Your task to perform on an android device: Open Google Chrome and open the bookmarks view Image 0: 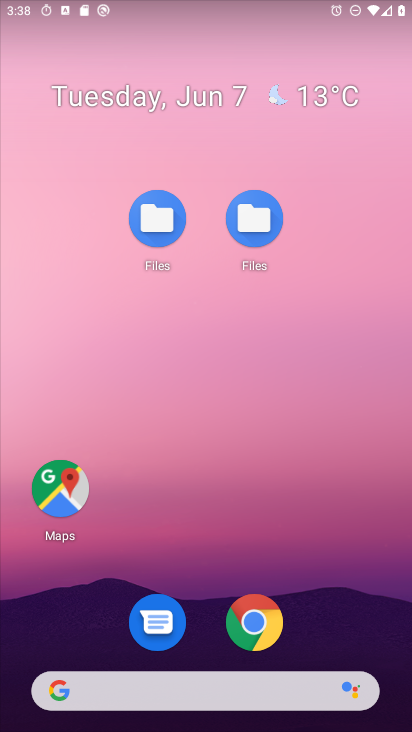
Step 0: click (253, 622)
Your task to perform on an android device: Open Google Chrome and open the bookmarks view Image 1: 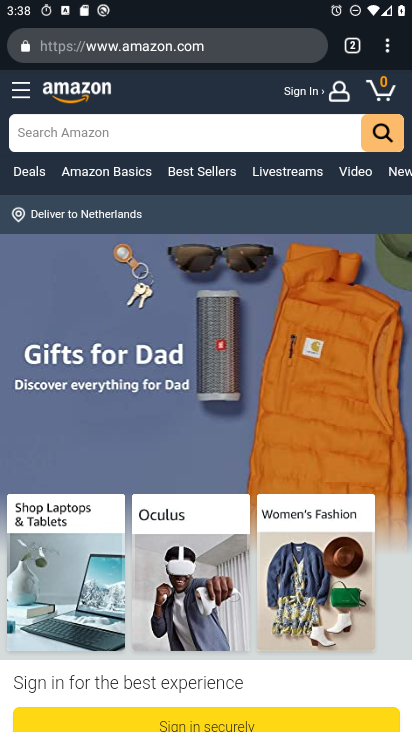
Step 1: click (386, 44)
Your task to perform on an android device: Open Google Chrome and open the bookmarks view Image 2: 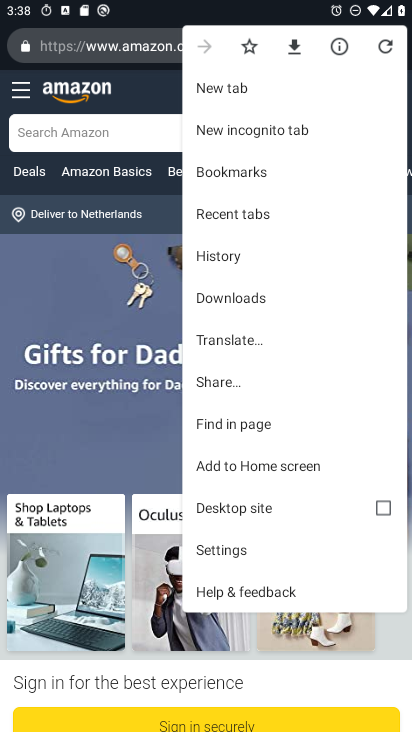
Step 2: click (272, 161)
Your task to perform on an android device: Open Google Chrome and open the bookmarks view Image 3: 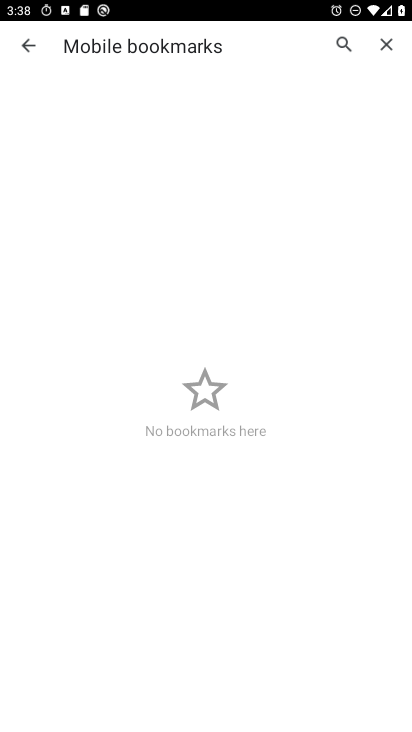
Step 3: task complete